Your task to perform on an android device: turn on the 24-hour format for clock Image 0: 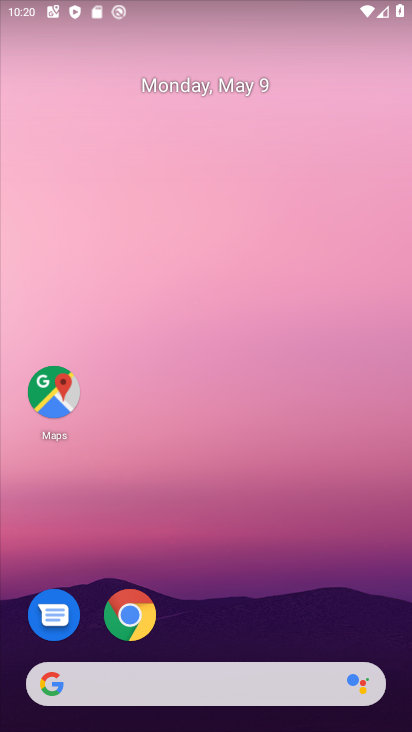
Step 0: drag from (173, 640) to (243, 287)
Your task to perform on an android device: turn on the 24-hour format for clock Image 1: 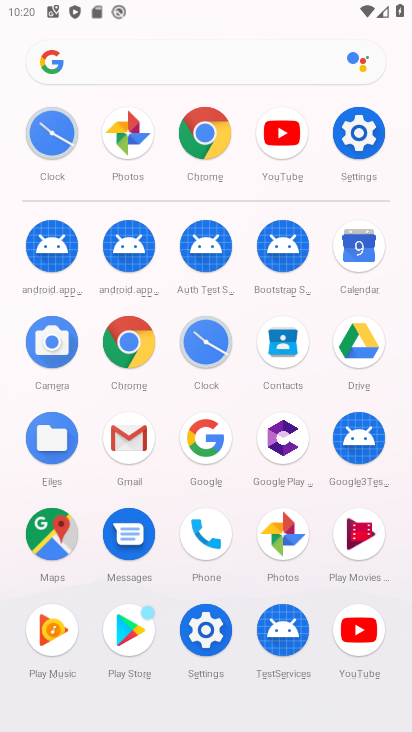
Step 1: click (206, 346)
Your task to perform on an android device: turn on the 24-hour format for clock Image 2: 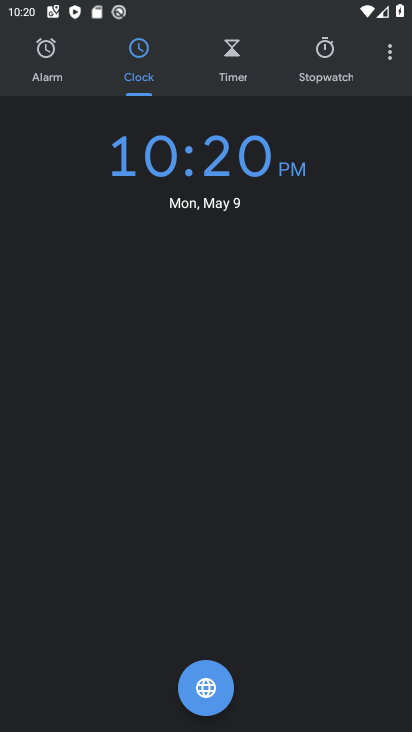
Step 2: click (387, 56)
Your task to perform on an android device: turn on the 24-hour format for clock Image 3: 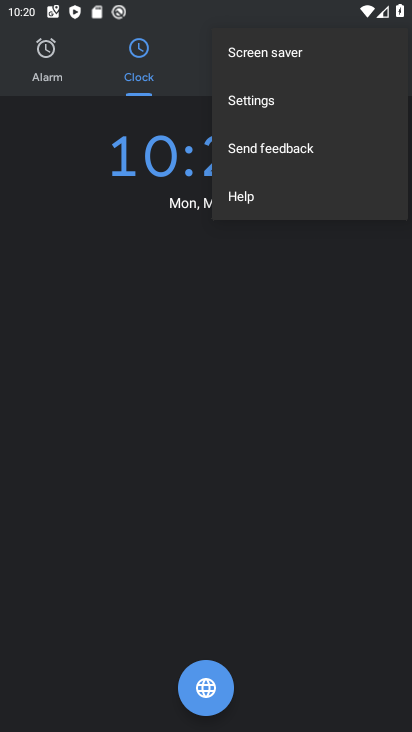
Step 3: click (289, 105)
Your task to perform on an android device: turn on the 24-hour format for clock Image 4: 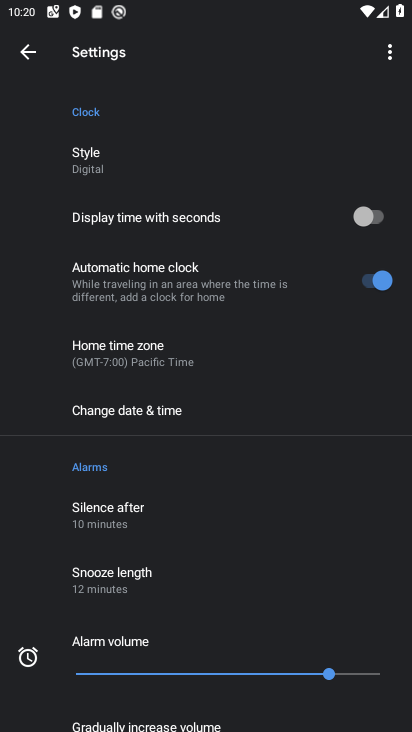
Step 4: click (158, 415)
Your task to perform on an android device: turn on the 24-hour format for clock Image 5: 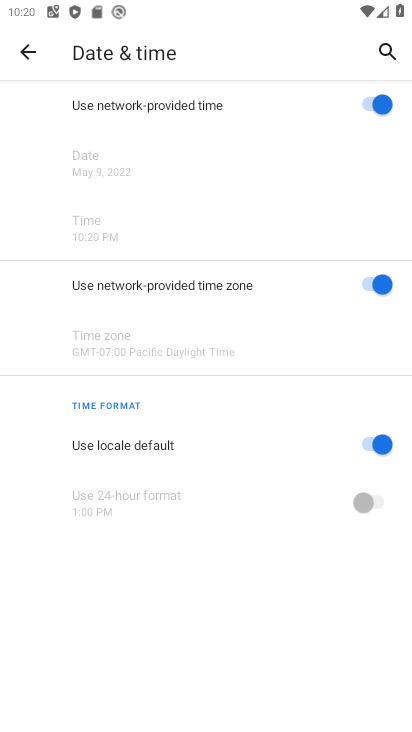
Step 5: click (378, 453)
Your task to perform on an android device: turn on the 24-hour format for clock Image 6: 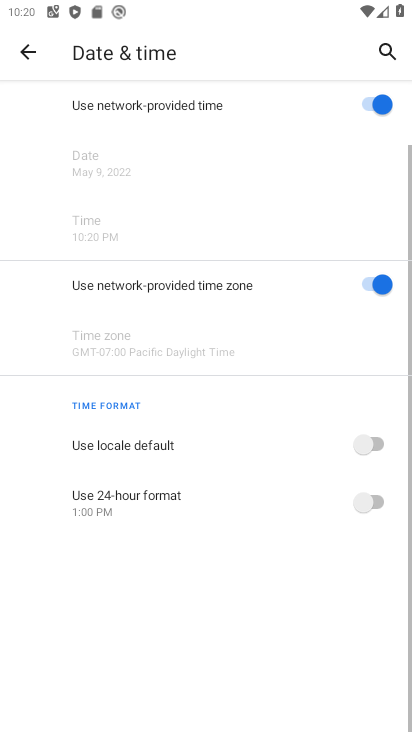
Step 6: click (372, 503)
Your task to perform on an android device: turn on the 24-hour format for clock Image 7: 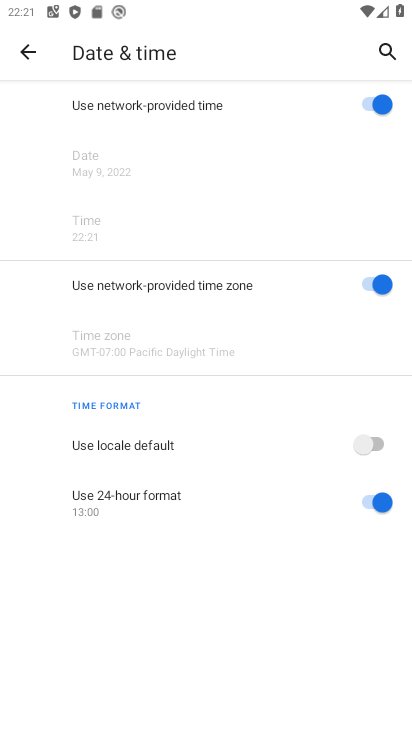
Step 7: task complete